Your task to perform on an android device: Turn on the flashlight Image 0: 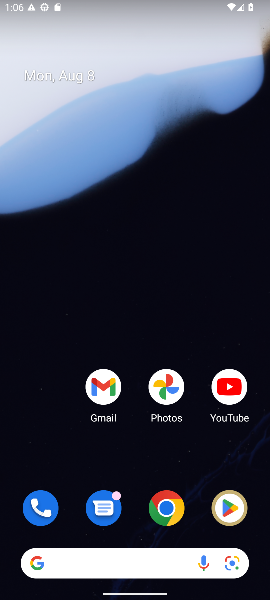
Step 0: drag from (126, 478) to (139, 66)
Your task to perform on an android device: Turn on the flashlight Image 1: 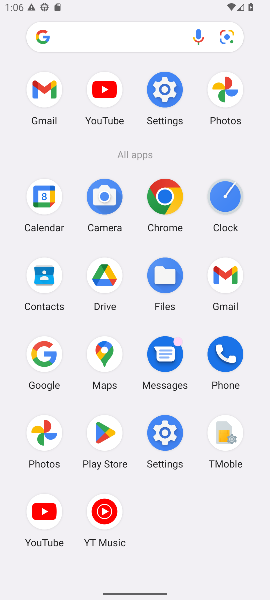
Step 1: task complete